Your task to perform on an android device: Go to network settings Image 0: 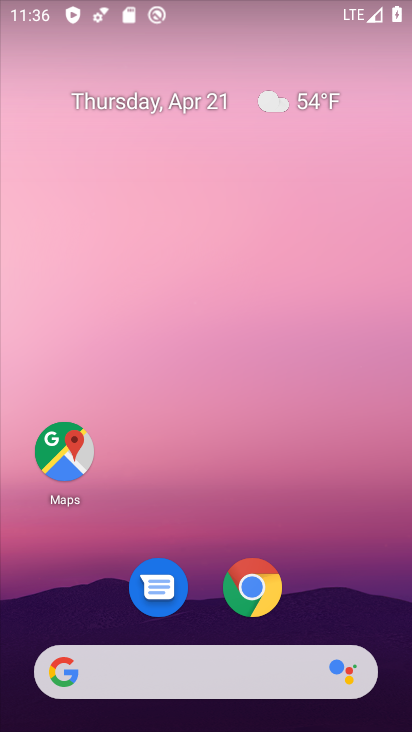
Step 0: drag from (216, 574) to (310, 122)
Your task to perform on an android device: Go to network settings Image 1: 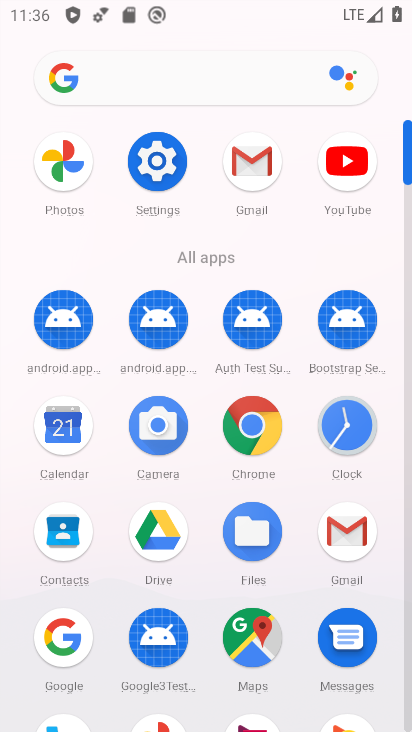
Step 1: click (152, 168)
Your task to perform on an android device: Go to network settings Image 2: 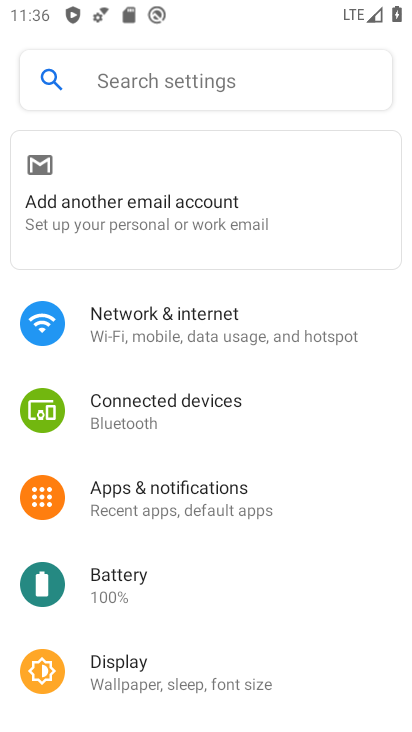
Step 2: click (162, 328)
Your task to perform on an android device: Go to network settings Image 3: 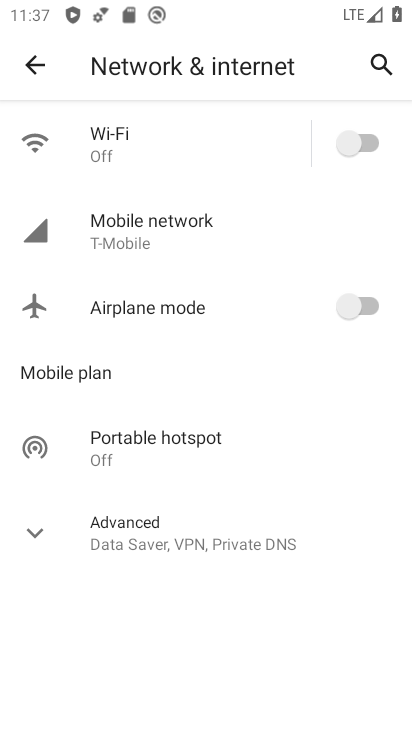
Step 3: task complete